Your task to perform on an android device: Open the calendar and show me this week's events Image 0: 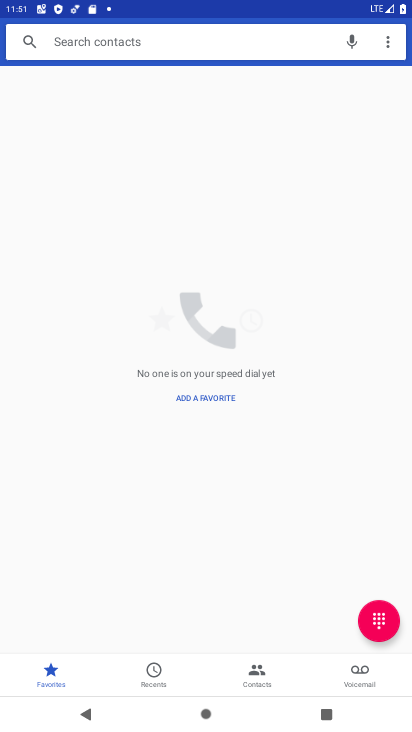
Step 0: press home button
Your task to perform on an android device: Open the calendar and show me this week's events Image 1: 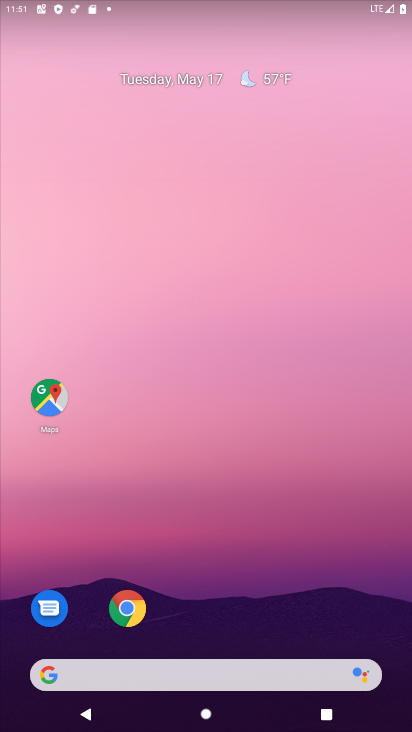
Step 1: drag from (239, 603) to (197, 92)
Your task to perform on an android device: Open the calendar and show me this week's events Image 2: 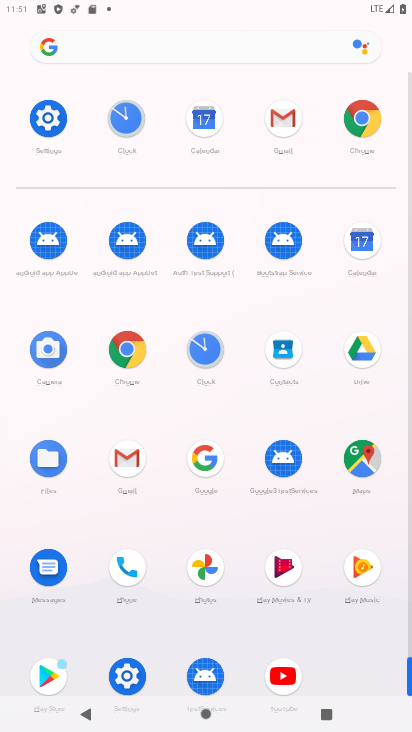
Step 2: click (356, 242)
Your task to perform on an android device: Open the calendar and show me this week's events Image 3: 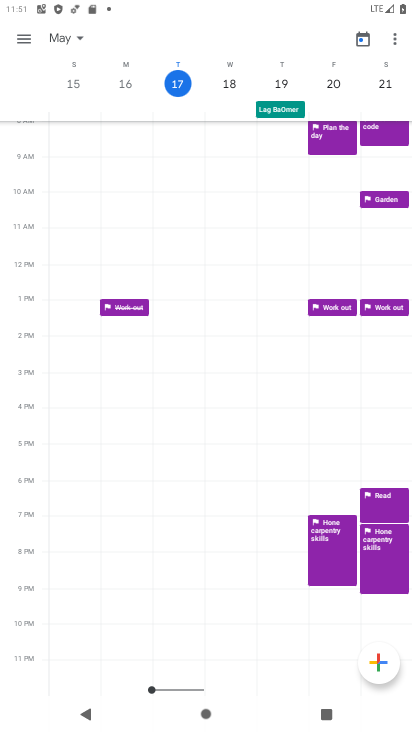
Step 3: task complete